Your task to perform on an android device: toggle wifi Image 0: 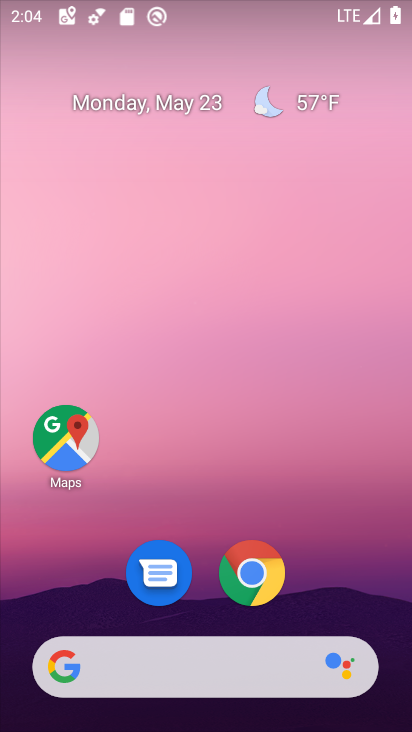
Step 0: drag from (341, 550) to (327, 149)
Your task to perform on an android device: toggle wifi Image 1: 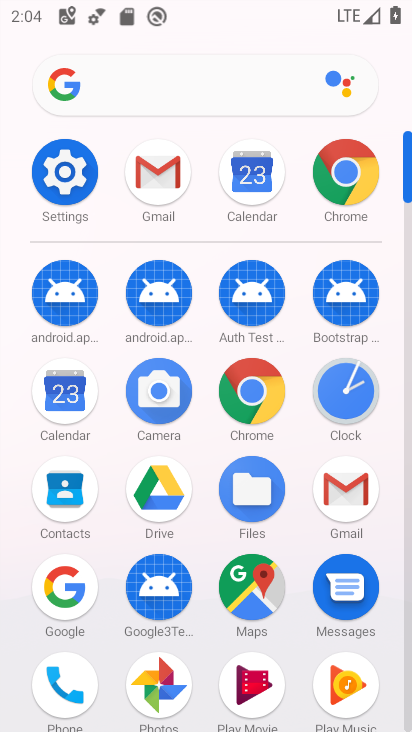
Step 1: click (58, 175)
Your task to perform on an android device: toggle wifi Image 2: 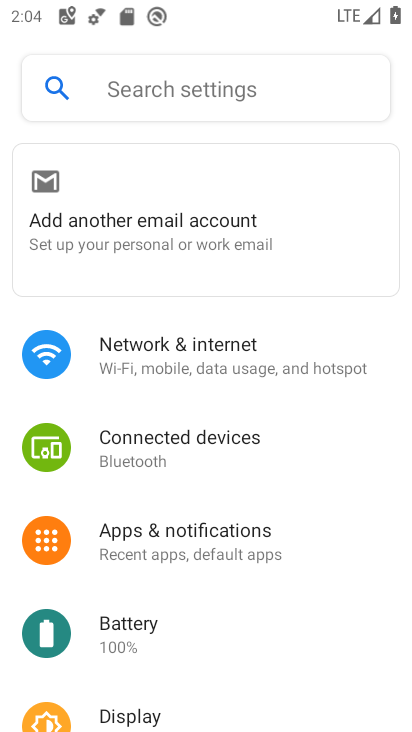
Step 2: click (225, 356)
Your task to perform on an android device: toggle wifi Image 3: 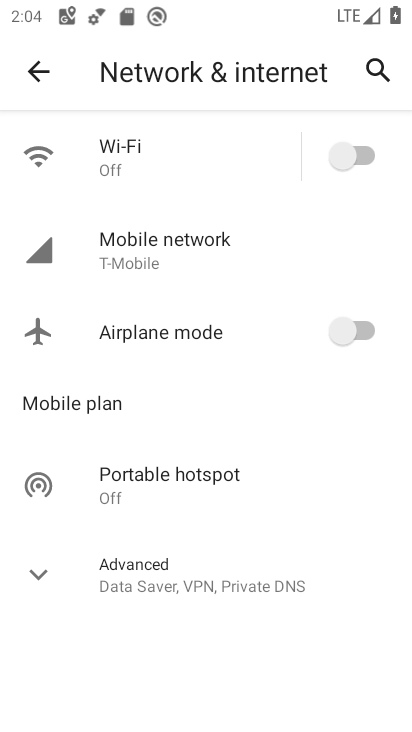
Step 3: click (341, 146)
Your task to perform on an android device: toggle wifi Image 4: 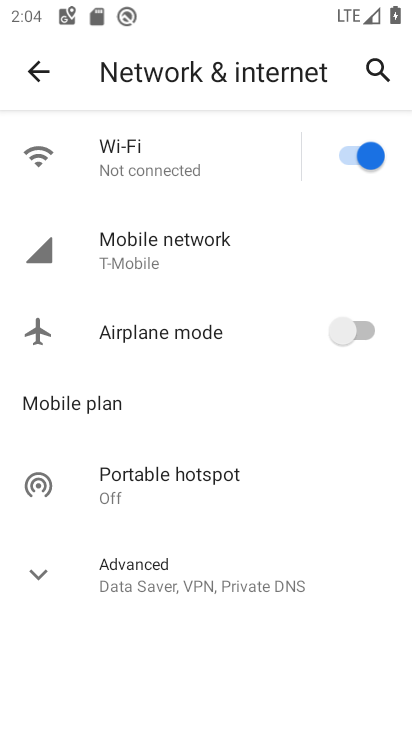
Step 4: task complete